Your task to perform on an android device: Empty the shopping cart on amazon. Search for macbook air on amazon, select the first entry, add it to the cart, then select checkout. Image 0: 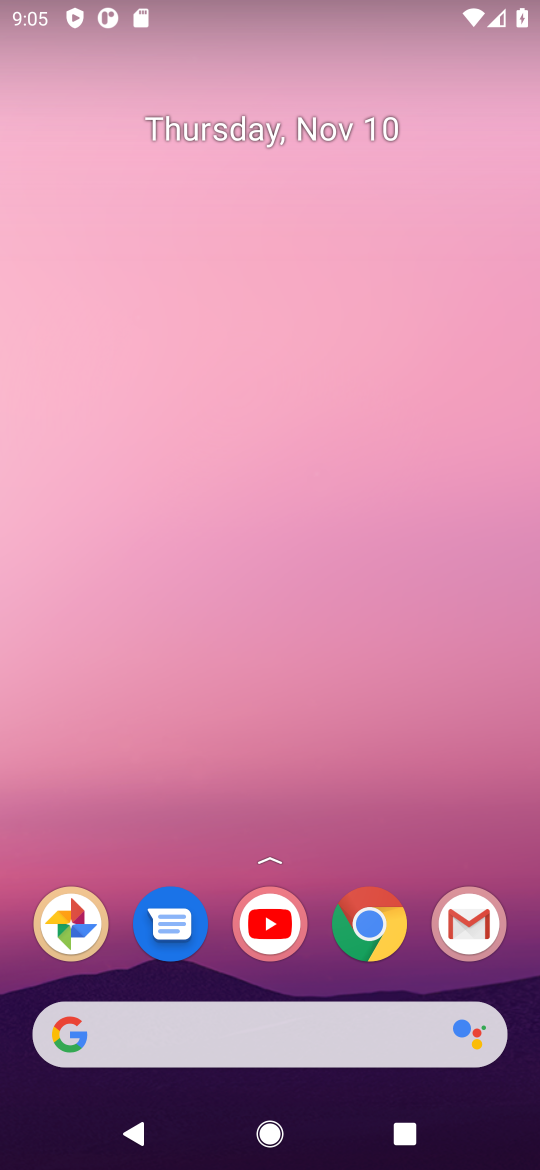
Step 0: click (365, 927)
Your task to perform on an android device: Empty the shopping cart on amazon. Search for macbook air on amazon, select the first entry, add it to the cart, then select checkout. Image 1: 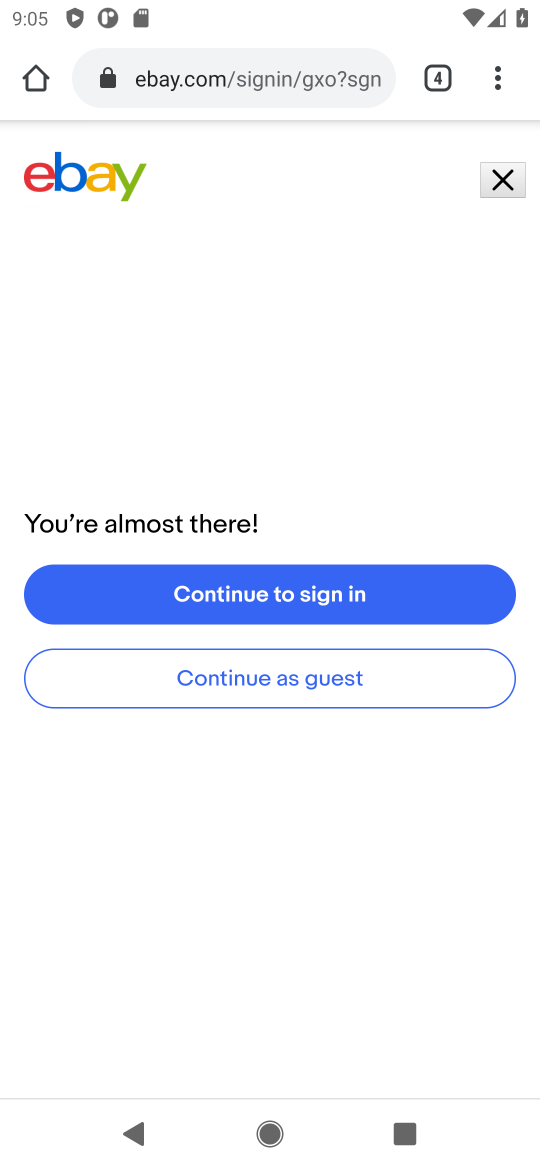
Step 1: click (226, 86)
Your task to perform on an android device: Empty the shopping cart on amazon. Search for macbook air on amazon, select the first entry, add it to the cart, then select checkout. Image 2: 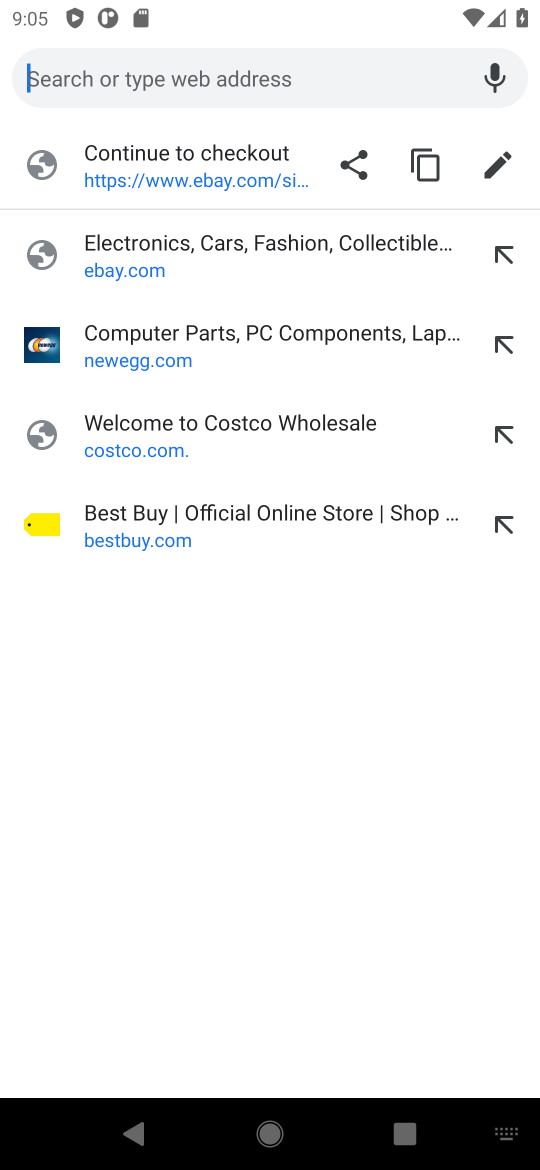
Step 2: type "amazon.com"
Your task to perform on an android device: Empty the shopping cart on amazon. Search for macbook air on amazon, select the first entry, add it to the cart, then select checkout. Image 3: 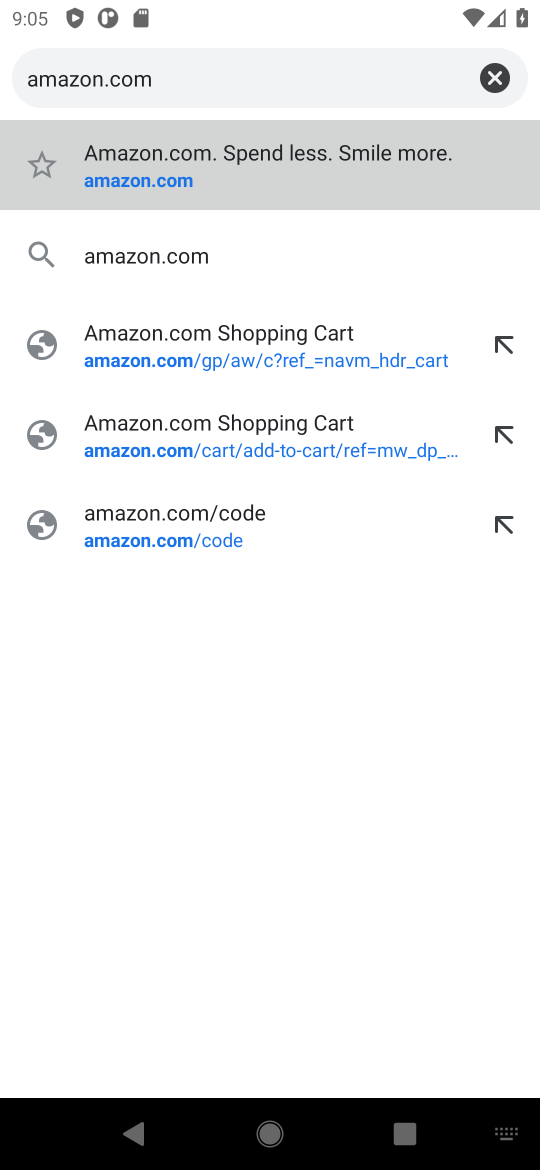
Step 3: click (122, 336)
Your task to perform on an android device: Empty the shopping cart on amazon. Search for macbook air on amazon, select the first entry, add it to the cart, then select checkout. Image 4: 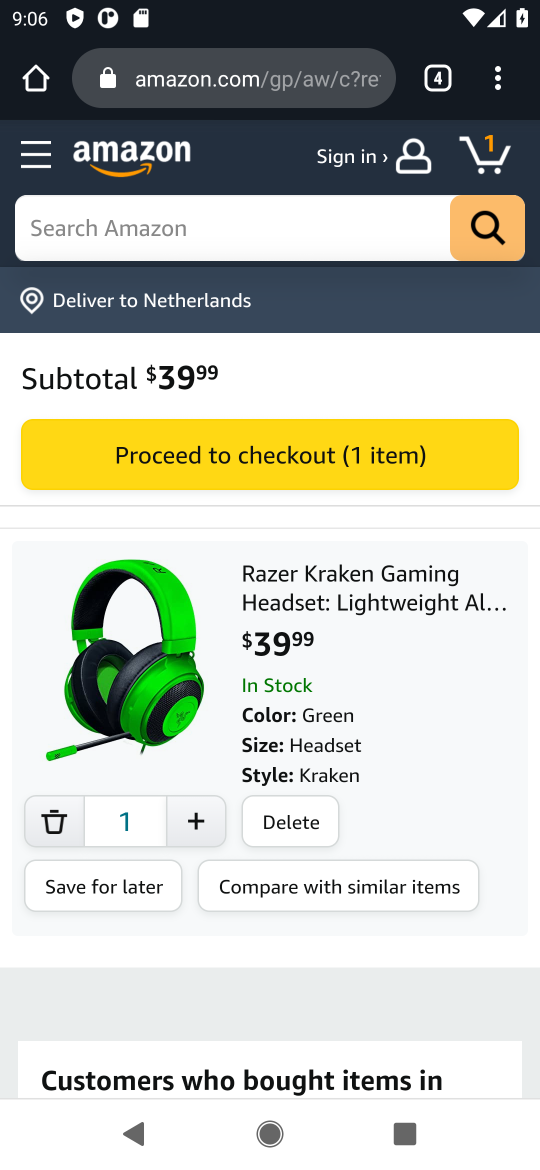
Step 4: click (268, 826)
Your task to perform on an android device: Empty the shopping cart on amazon. Search for macbook air on amazon, select the first entry, add it to the cart, then select checkout. Image 5: 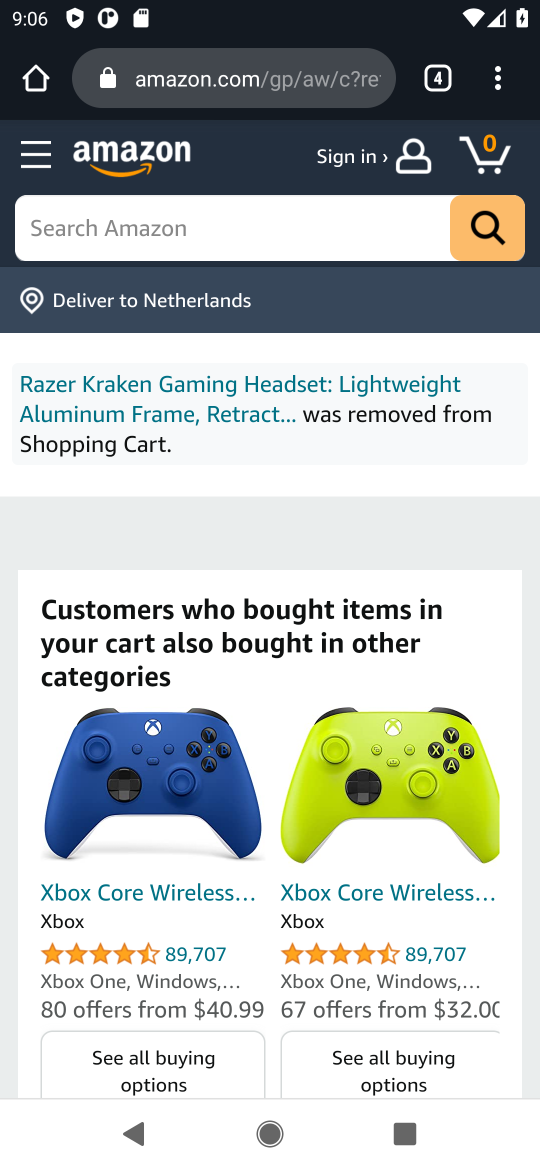
Step 5: drag from (268, 826) to (264, 649)
Your task to perform on an android device: Empty the shopping cart on amazon. Search for macbook air on amazon, select the first entry, add it to the cart, then select checkout. Image 6: 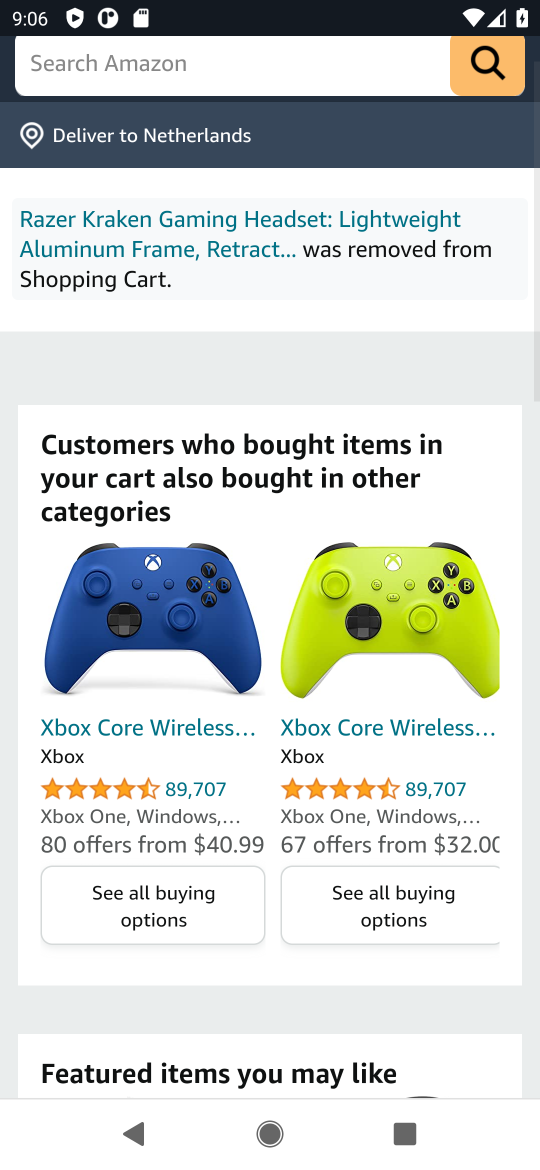
Step 6: drag from (264, 584) to (242, 934)
Your task to perform on an android device: Empty the shopping cart on amazon. Search for macbook air on amazon, select the first entry, add it to the cart, then select checkout. Image 7: 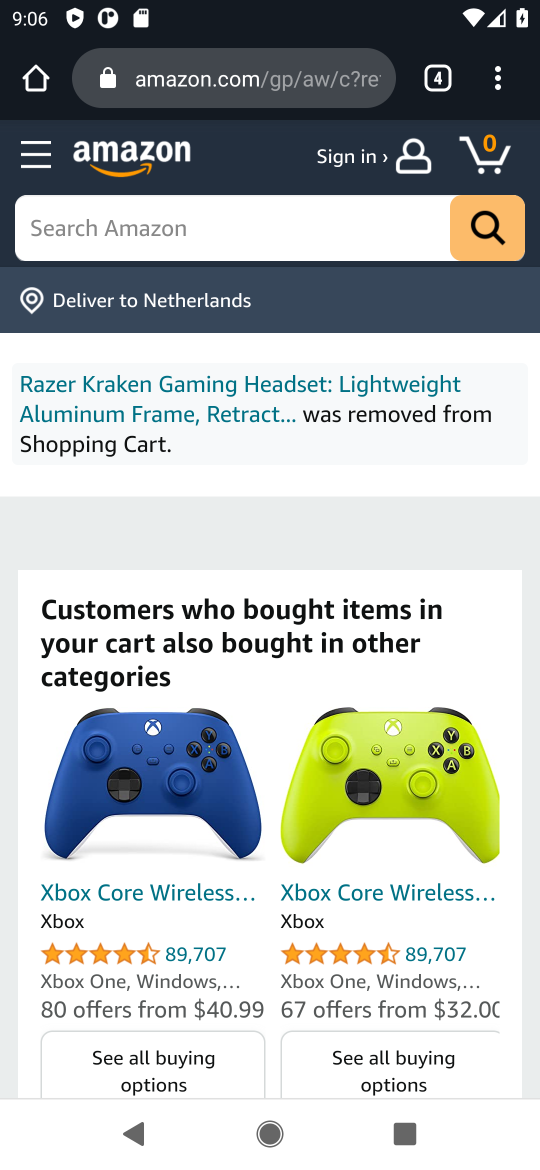
Step 7: click (179, 228)
Your task to perform on an android device: Empty the shopping cart on amazon. Search for macbook air on amazon, select the first entry, add it to the cart, then select checkout. Image 8: 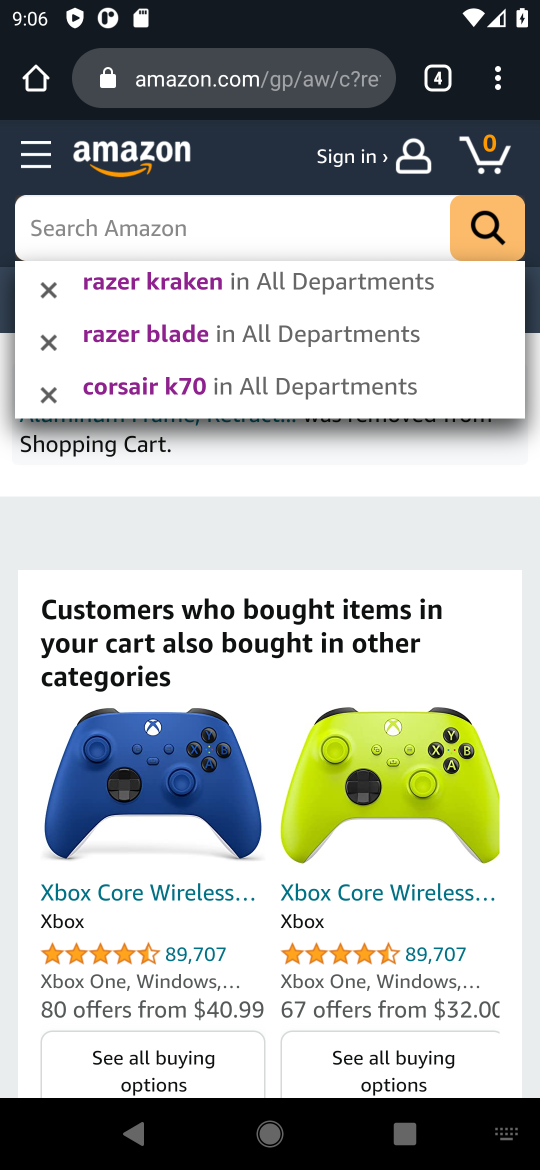
Step 8: type "macbook air"
Your task to perform on an android device: Empty the shopping cart on amazon. Search for macbook air on amazon, select the first entry, add it to the cart, then select checkout. Image 9: 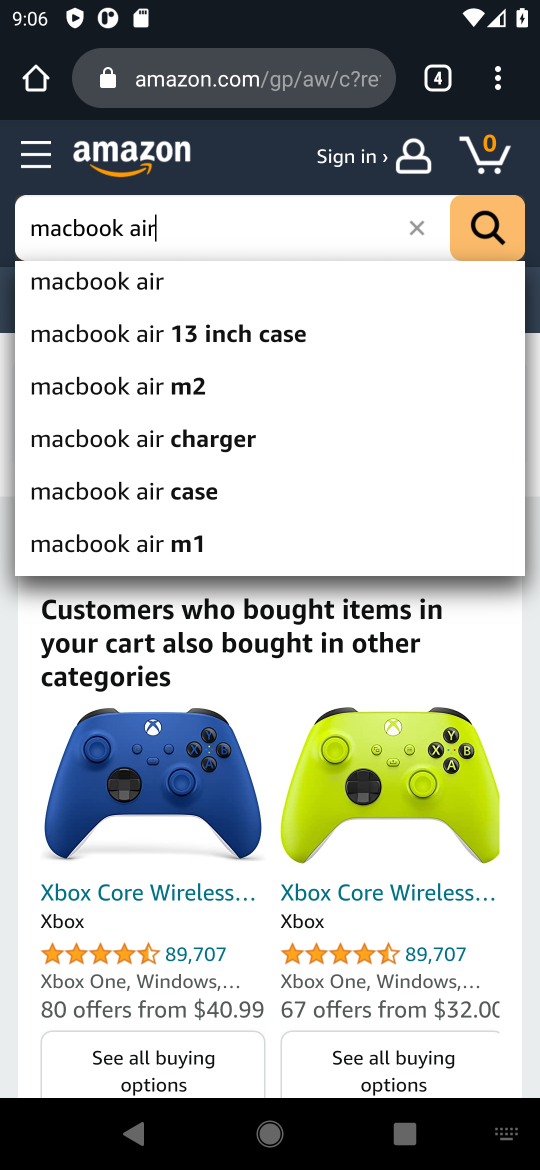
Step 9: click (92, 288)
Your task to perform on an android device: Empty the shopping cart on amazon. Search for macbook air on amazon, select the first entry, add it to the cart, then select checkout. Image 10: 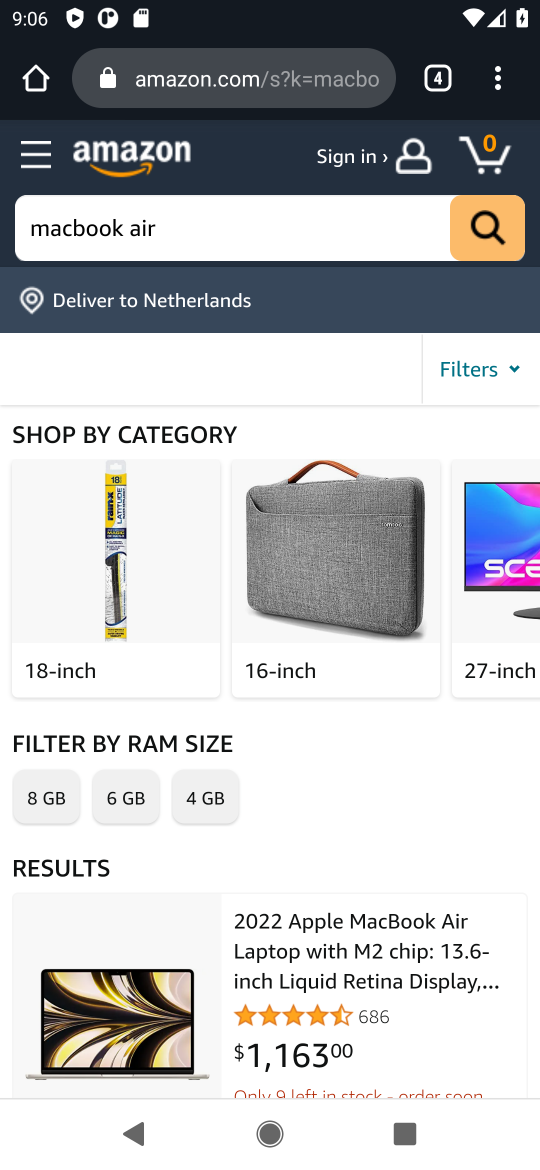
Step 10: drag from (329, 838) to (312, 471)
Your task to perform on an android device: Empty the shopping cart on amazon. Search for macbook air on amazon, select the first entry, add it to the cart, then select checkout. Image 11: 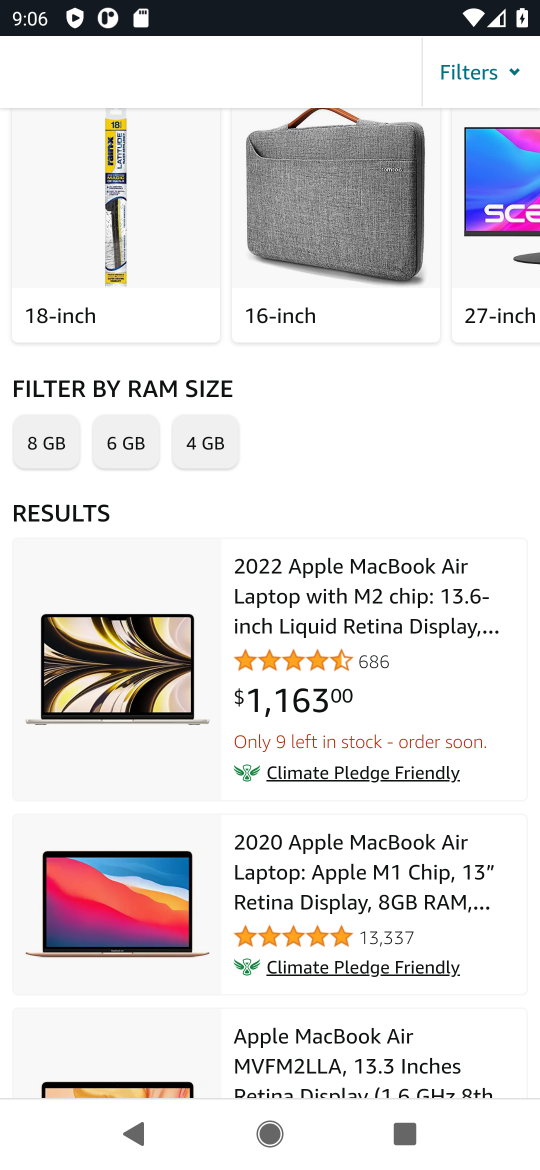
Step 11: drag from (150, 745) to (184, 497)
Your task to perform on an android device: Empty the shopping cart on amazon. Search for macbook air on amazon, select the first entry, add it to the cart, then select checkout. Image 12: 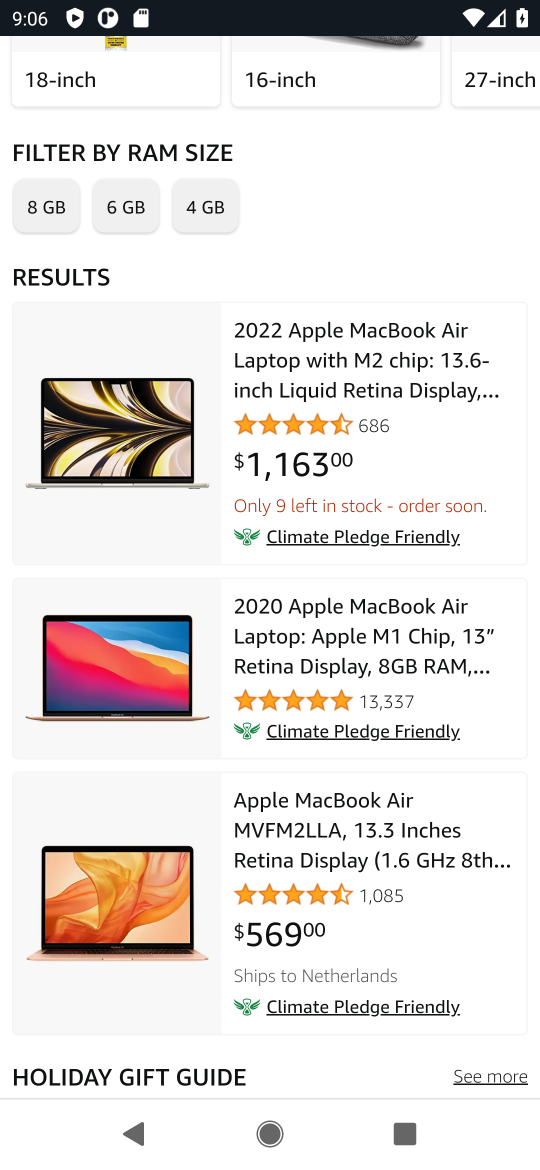
Step 12: click (143, 442)
Your task to perform on an android device: Empty the shopping cart on amazon. Search for macbook air on amazon, select the first entry, add it to the cart, then select checkout. Image 13: 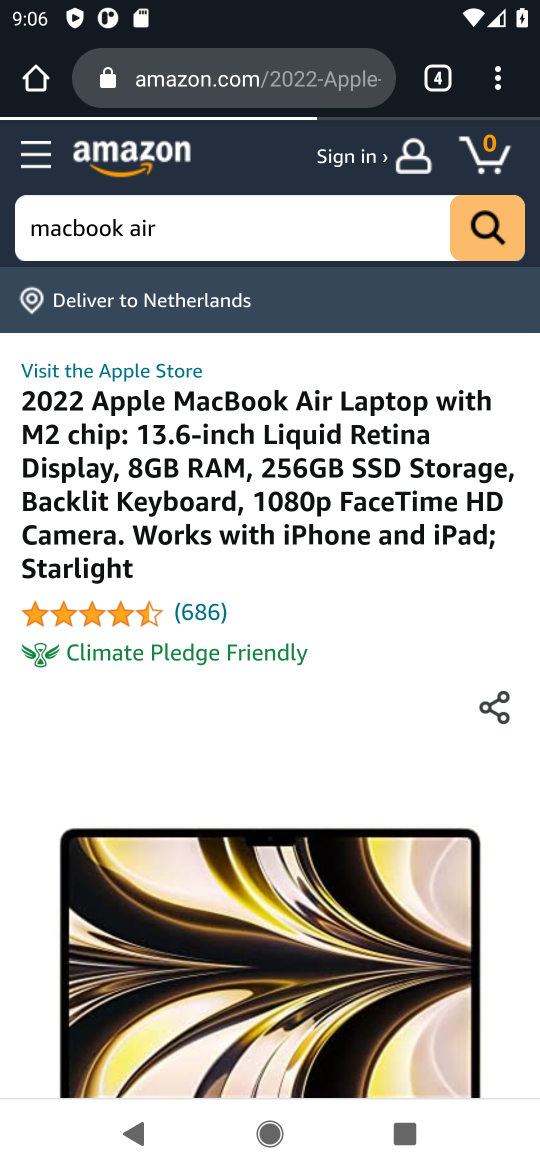
Step 13: task complete